Your task to perform on an android device: turn off location history Image 0: 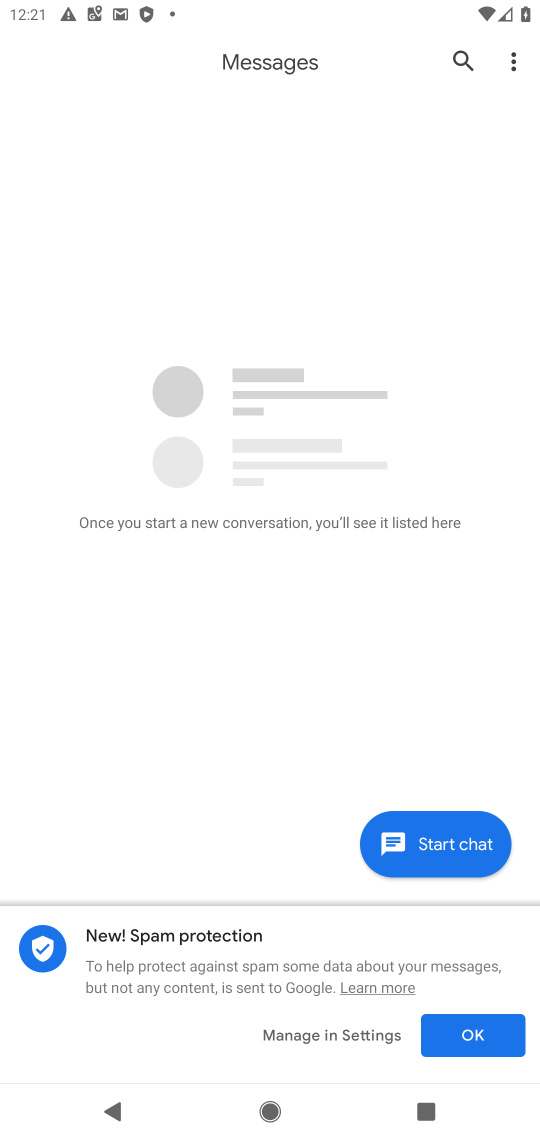
Step 0: press home button
Your task to perform on an android device: turn off location history Image 1: 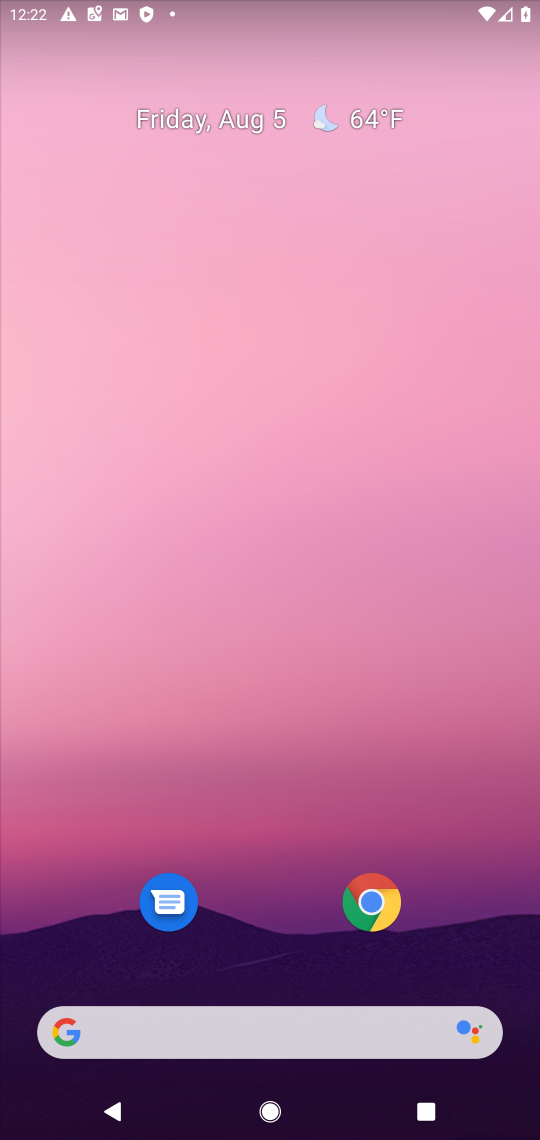
Step 1: drag from (287, 979) to (339, 324)
Your task to perform on an android device: turn off location history Image 2: 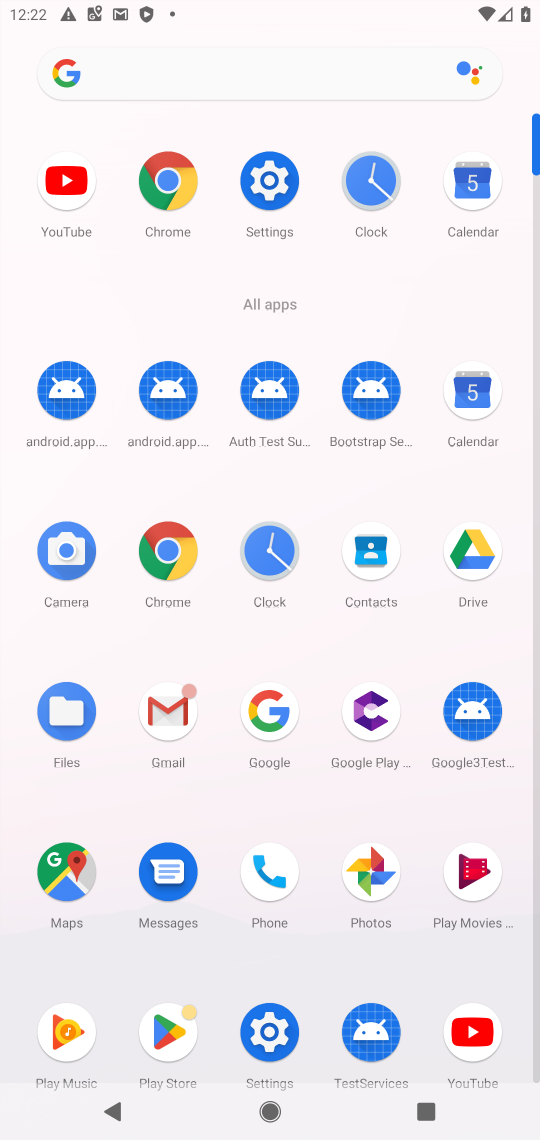
Step 2: click (261, 167)
Your task to perform on an android device: turn off location history Image 3: 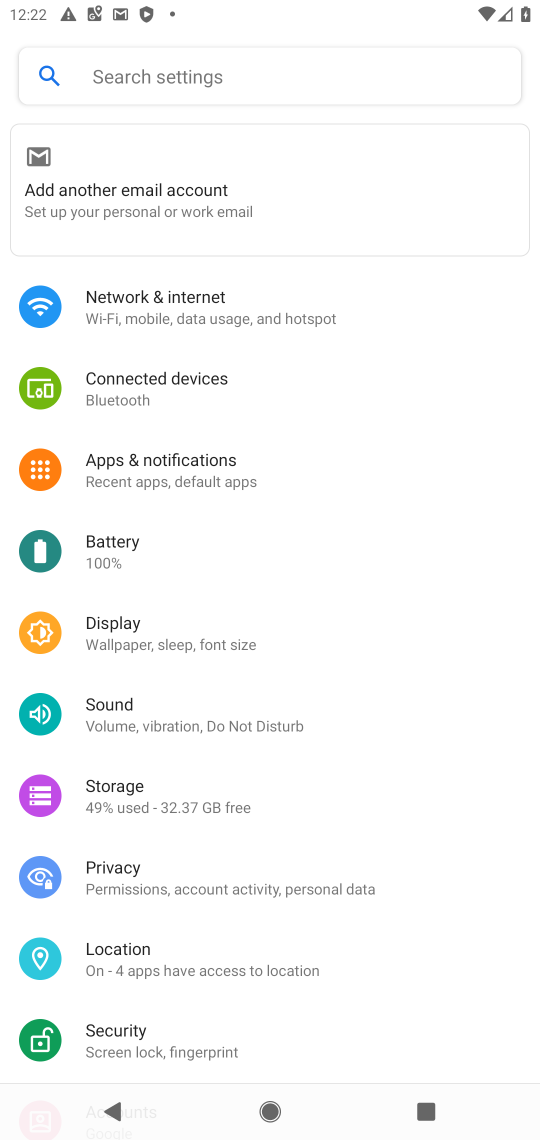
Step 3: click (165, 952)
Your task to perform on an android device: turn off location history Image 4: 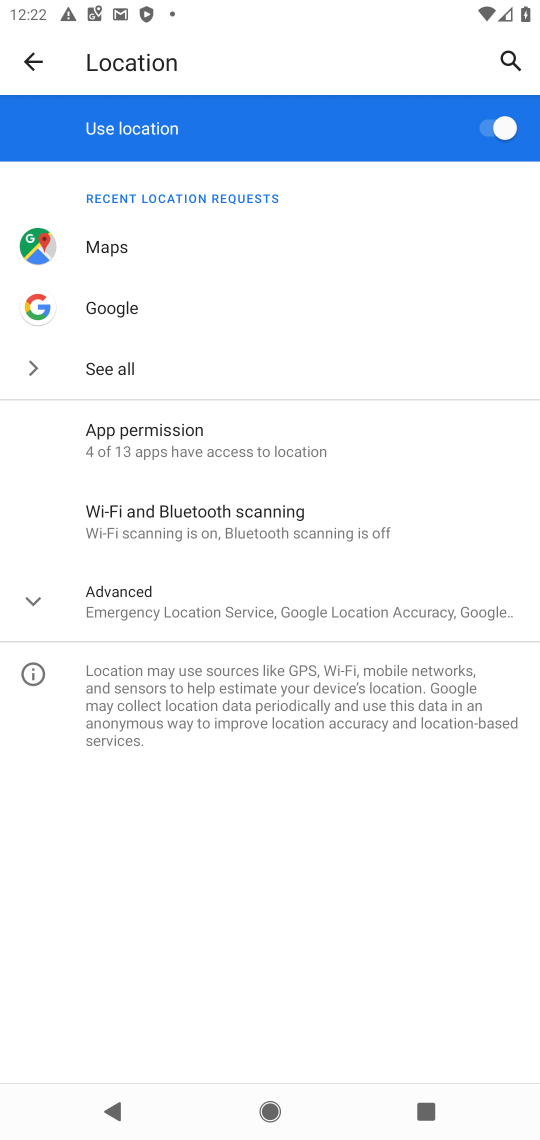
Step 4: click (30, 598)
Your task to perform on an android device: turn off location history Image 5: 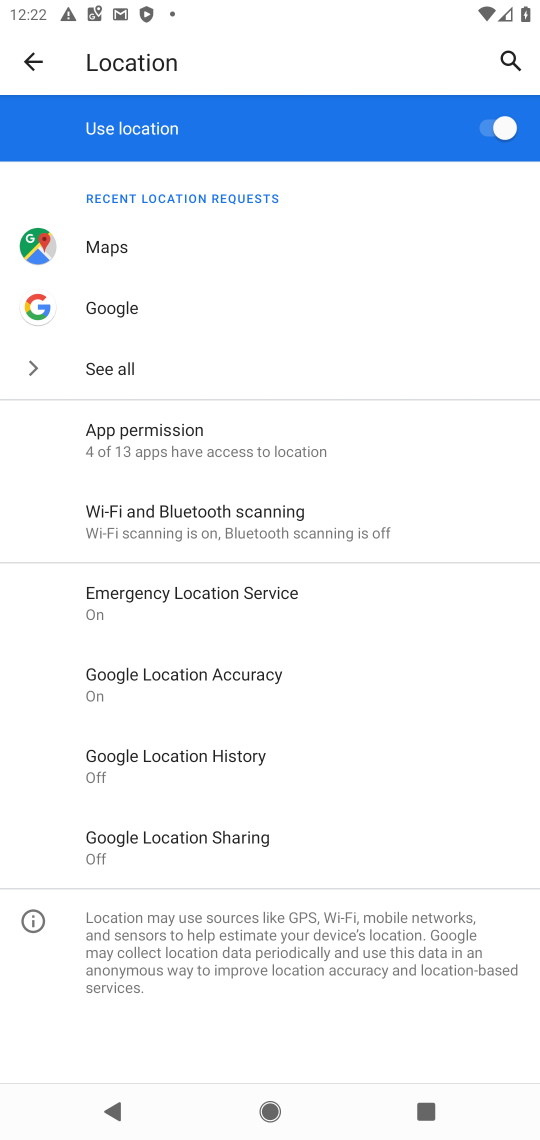
Step 5: click (149, 763)
Your task to perform on an android device: turn off location history Image 6: 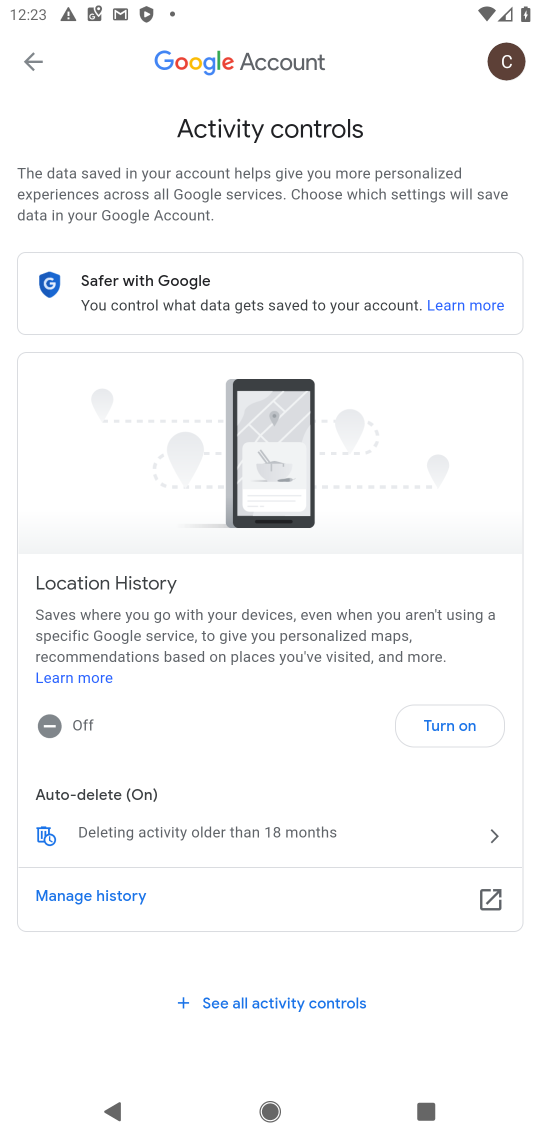
Step 6: task complete